Your task to perform on an android device: delete a single message in the gmail app Image 0: 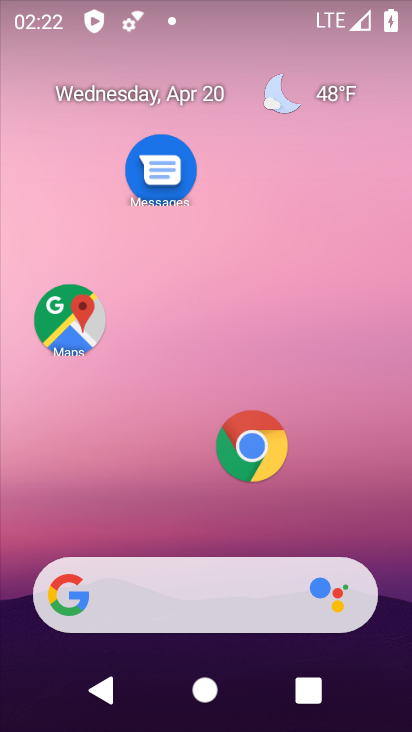
Step 0: drag from (232, 399) to (292, 59)
Your task to perform on an android device: delete a single message in the gmail app Image 1: 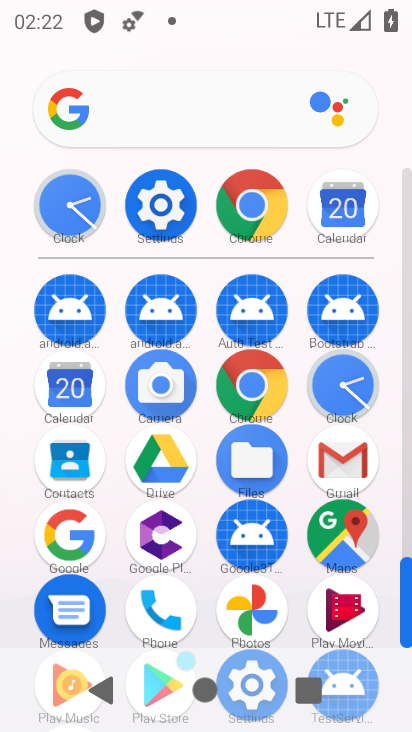
Step 1: click (342, 456)
Your task to perform on an android device: delete a single message in the gmail app Image 2: 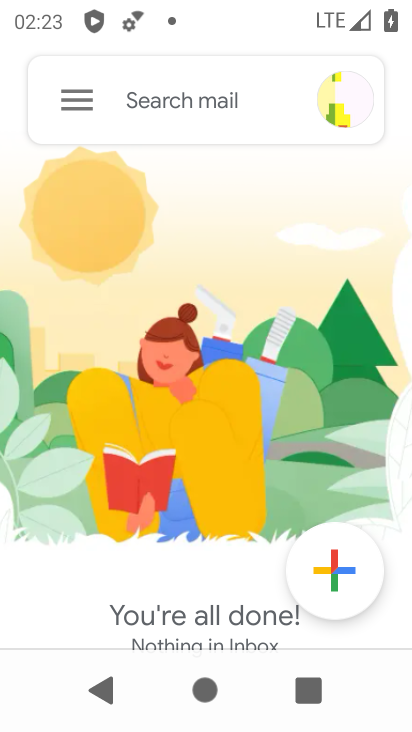
Step 2: task complete